Your task to perform on an android device: turn off data saver in the chrome app Image 0: 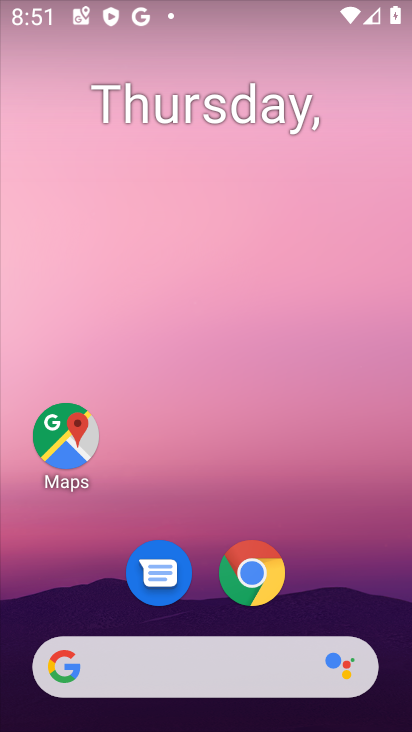
Step 0: drag from (332, 609) to (271, 115)
Your task to perform on an android device: turn off data saver in the chrome app Image 1: 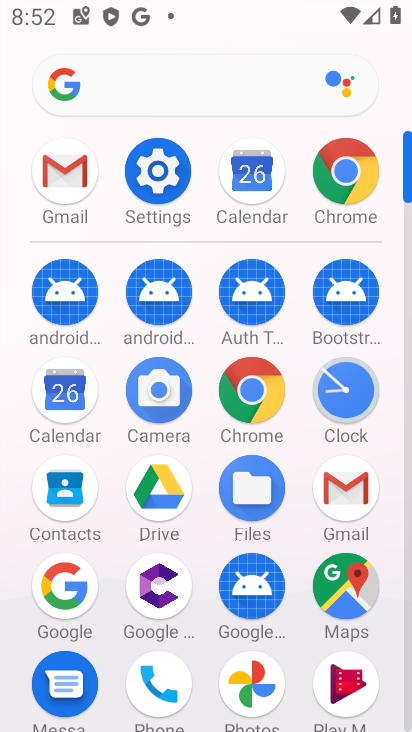
Step 1: click (333, 198)
Your task to perform on an android device: turn off data saver in the chrome app Image 2: 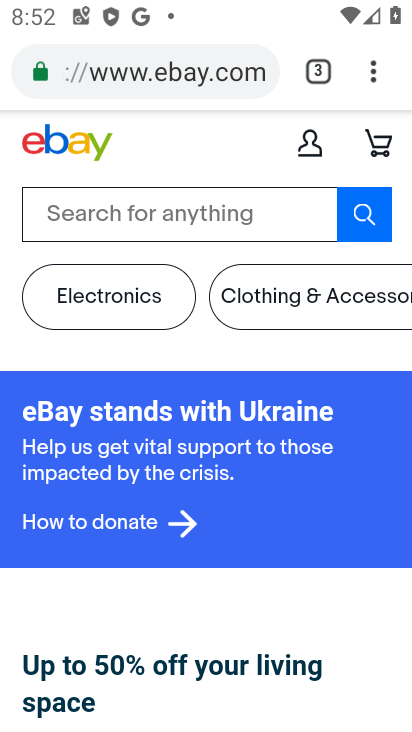
Step 2: drag from (372, 89) to (174, 574)
Your task to perform on an android device: turn off data saver in the chrome app Image 3: 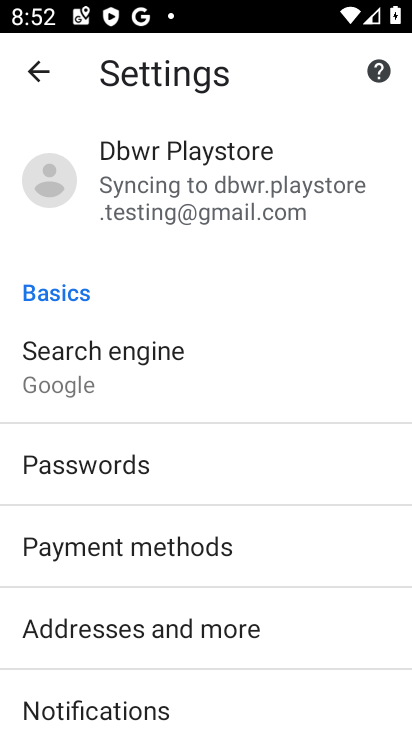
Step 3: drag from (246, 676) to (245, 327)
Your task to perform on an android device: turn off data saver in the chrome app Image 4: 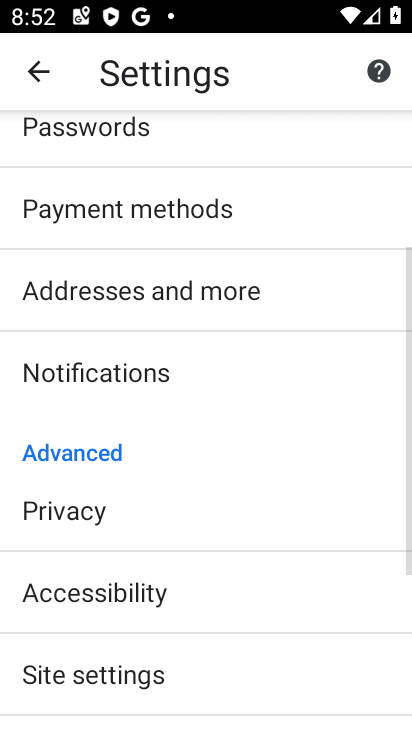
Step 4: drag from (265, 654) to (271, 327)
Your task to perform on an android device: turn off data saver in the chrome app Image 5: 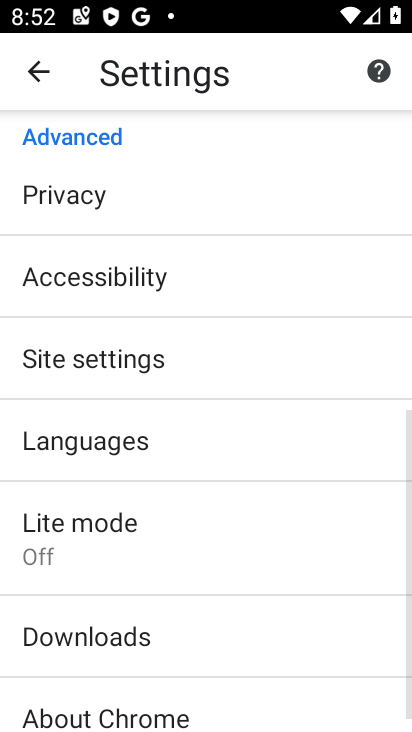
Step 5: drag from (267, 659) to (272, 356)
Your task to perform on an android device: turn off data saver in the chrome app Image 6: 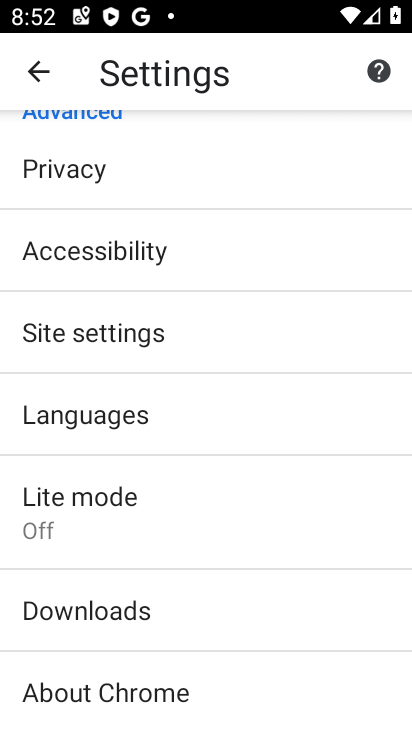
Step 6: click (151, 532)
Your task to perform on an android device: turn off data saver in the chrome app Image 7: 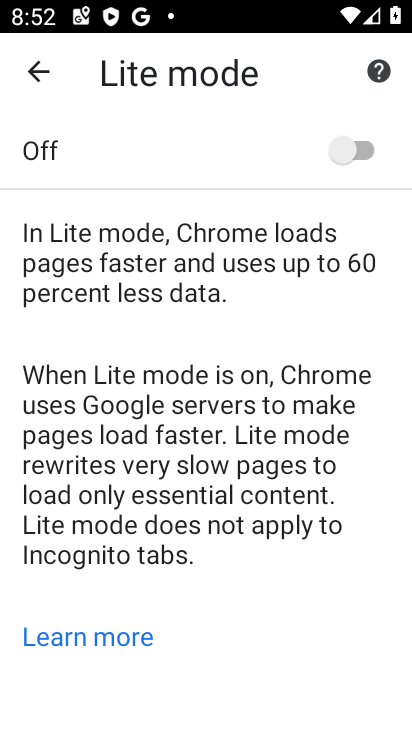
Step 7: task complete